Your task to perform on an android device: toggle notifications settings in the gmail app Image 0: 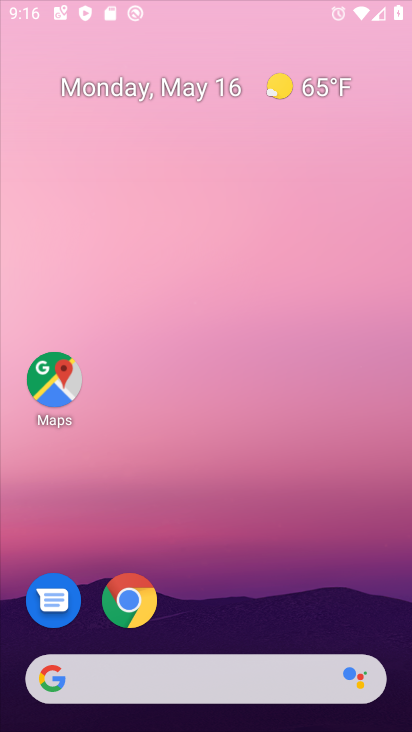
Step 0: click (308, 50)
Your task to perform on an android device: toggle notifications settings in the gmail app Image 1: 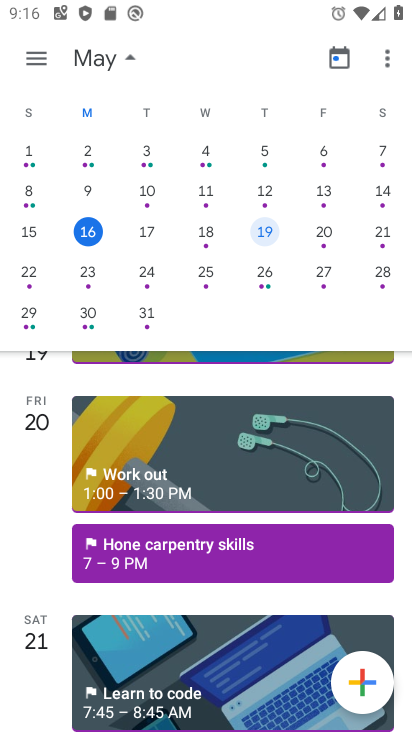
Step 1: drag from (214, 638) to (330, 45)
Your task to perform on an android device: toggle notifications settings in the gmail app Image 2: 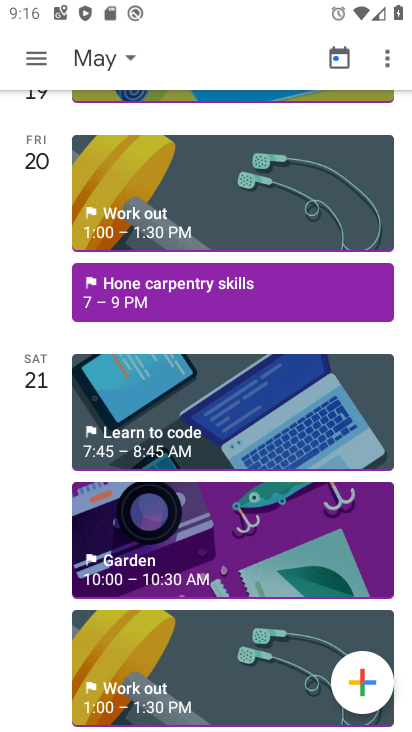
Step 2: press home button
Your task to perform on an android device: toggle notifications settings in the gmail app Image 3: 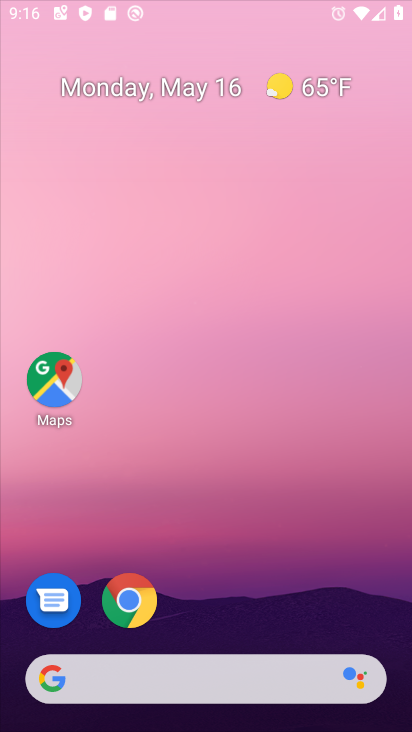
Step 3: drag from (210, 630) to (270, 123)
Your task to perform on an android device: toggle notifications settings in the gmail app Image 4: 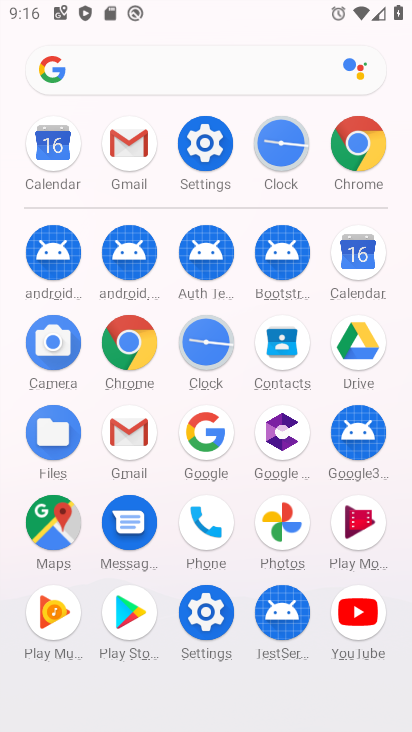
Step 4: drag from (161, 569) to (231, 228)
Your task to perform on an android device: toggle notifications settings in the gmail app Image 5: 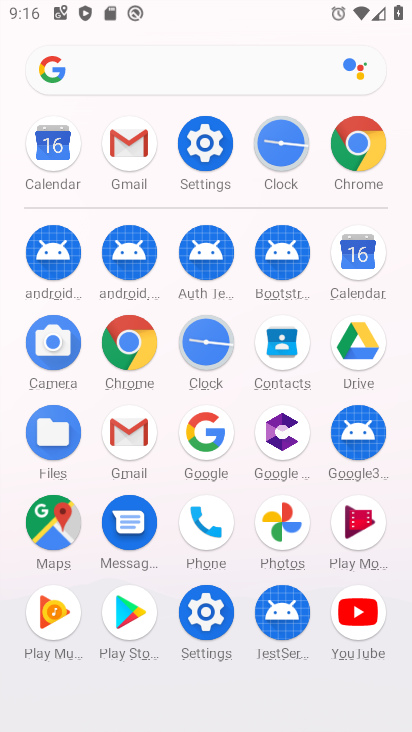
Step 5: click (115, 422)
Your task to perform on an android device: toggle notifications settings in the gmail app Image 6: 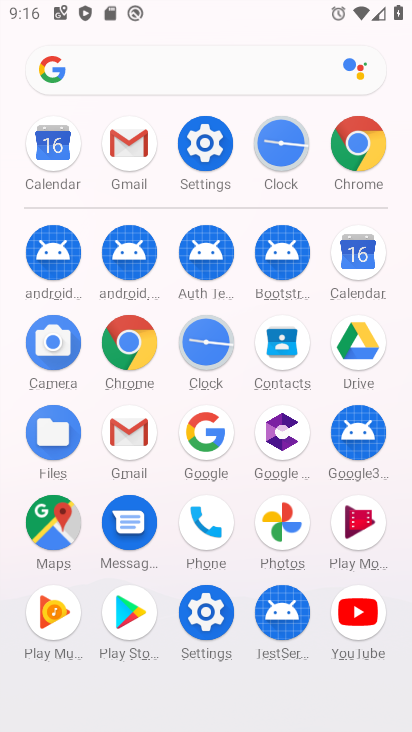
Step 6: click (115, 422)
Your task to perform on an android device: toggle notifications settings in the gmail app Image 7: 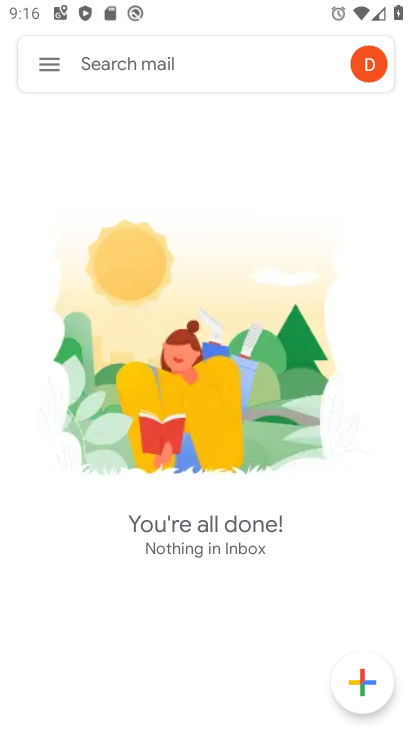
Step 7: click (6, 69)
Your task to perform on an android device: toggle notifications settings in the gmail app Image 8: 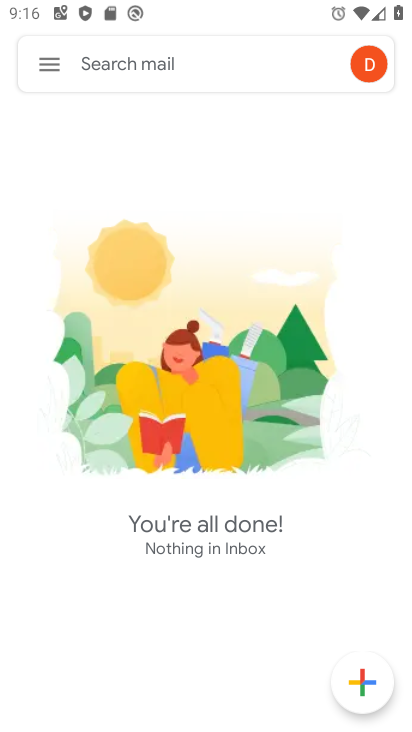
Step 8: click (43, 71)
Your task to perform on an android device: toggle notifications settings in the gmail app Image 9: 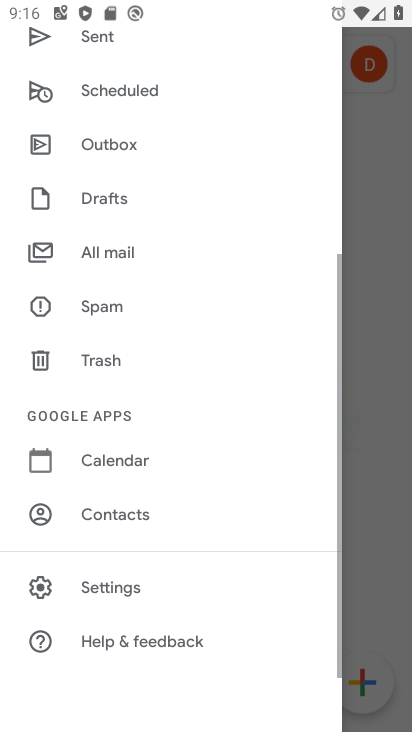
Step 9: drag from (217, 652) to (279, 142)
Your task to perform on an android device: toggle notifications settings in the gmail app Image 10: 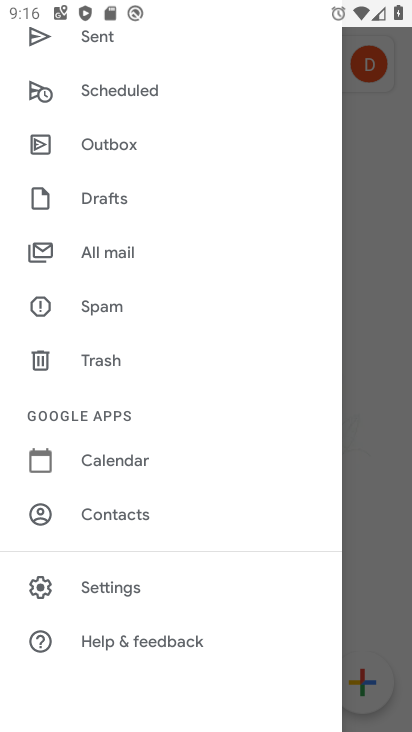
Step 10: click (131, 585)
Your task to perform on an android device: toggle notifications settings in the gmail app Image 11: 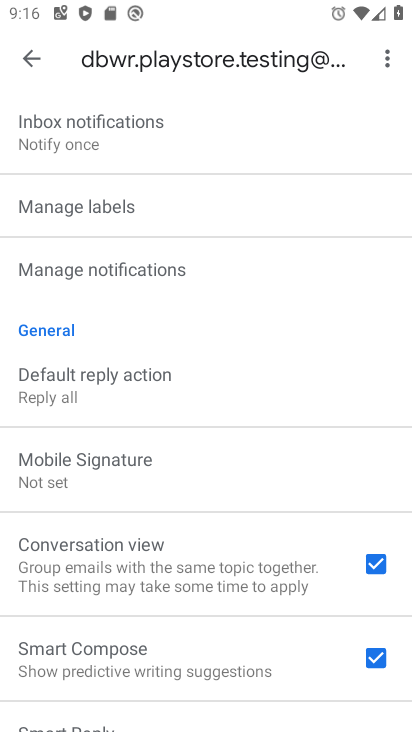
Step 11: drag from (216, 177) to (252, 730)
Your task to perform on an android device: toggle notifications settings in the gmail app Image 12: 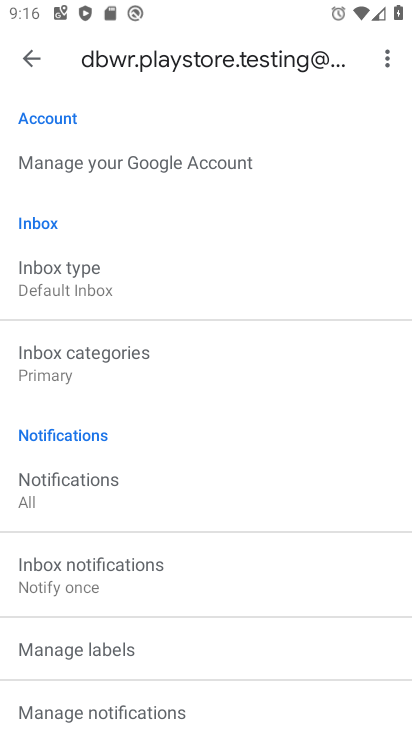
Step 12: drag from (177, 624) to (249, 293)
Your task to perform on an android device: toggle notifications settings in the gmail app Image 13: 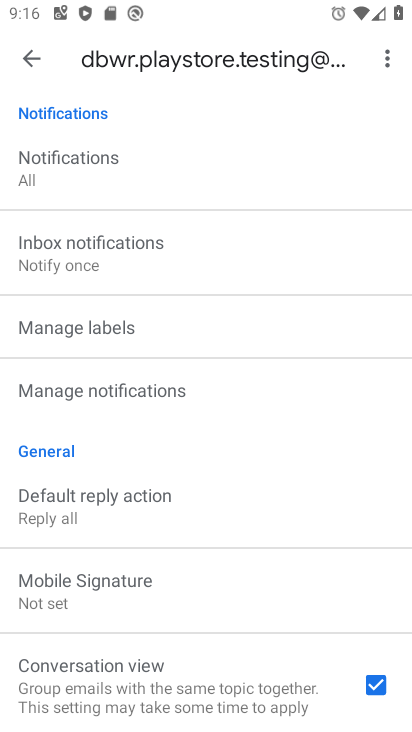
Step 13: click (239, 390)
Your task to perform on an android device: toggle notifications settings in the gmail app Image 14: 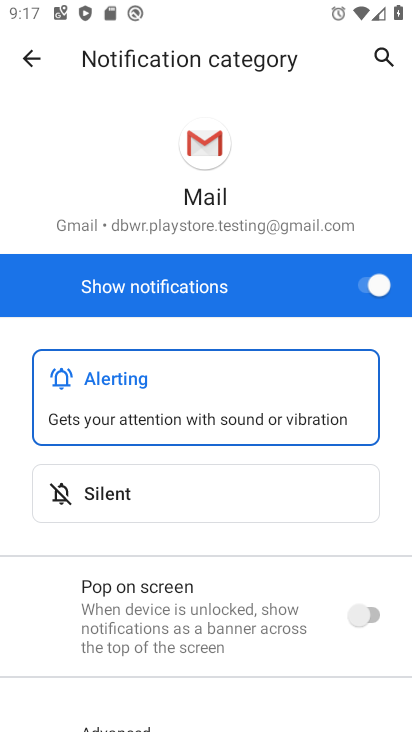
Step 14: drag from (228, 571) to (346, 304)
Your task to perform on an android device: toggle notifications settings in the gmail app Image 15: 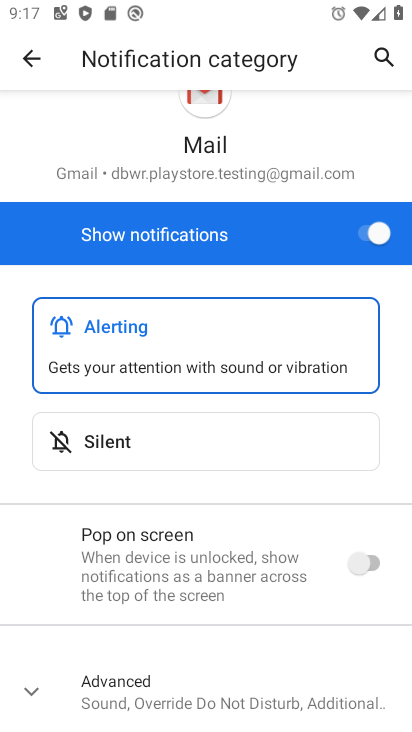
Step 15: click (371, 227)
Your task to perform on an android device: toggle notifications settings in the gmail app Image 16: 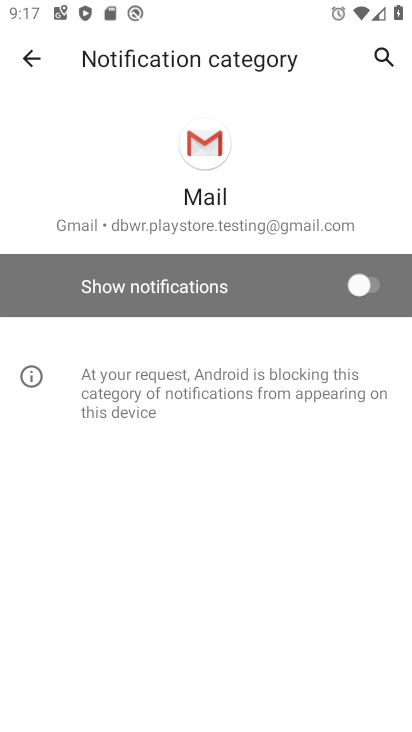
Step 16: task complete